Your task to perform on an android device: add a contact in the contacts app Image 0: 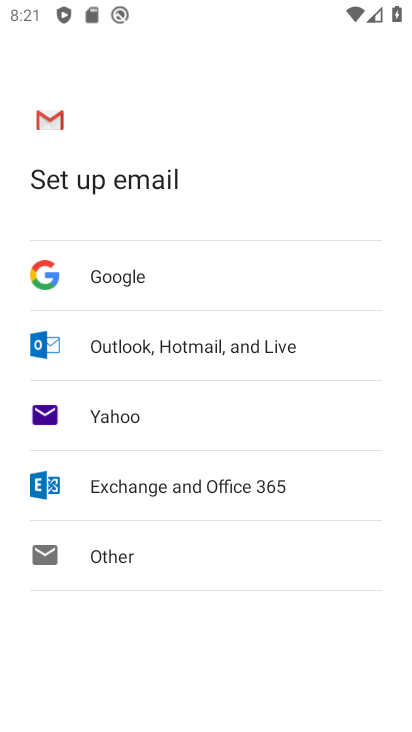
Step 0: press back button
Your task to perform on an android device: add a contact in the contacts app Image 1: 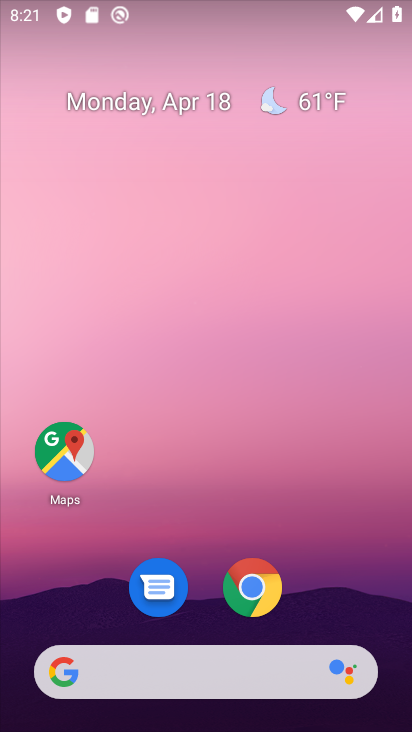
Step 1: drag from (210, 729) to (217, 100)
Your task to perform on an android device: add a contact in the contacts app Image 2: 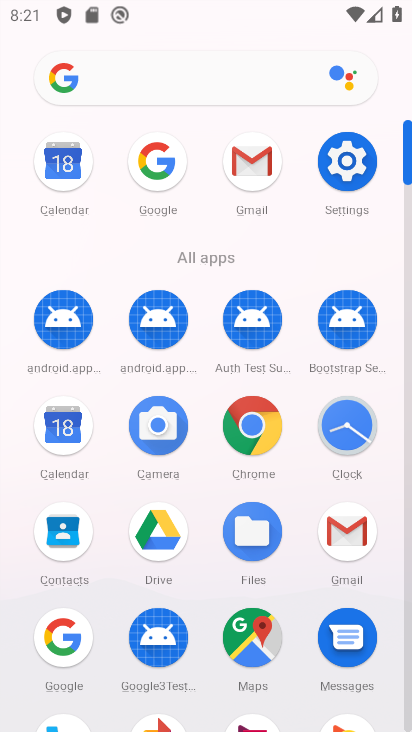
Step 2: click (68, 533)
Your task to perform on an android device: add a contact in the contacts app Image 3: 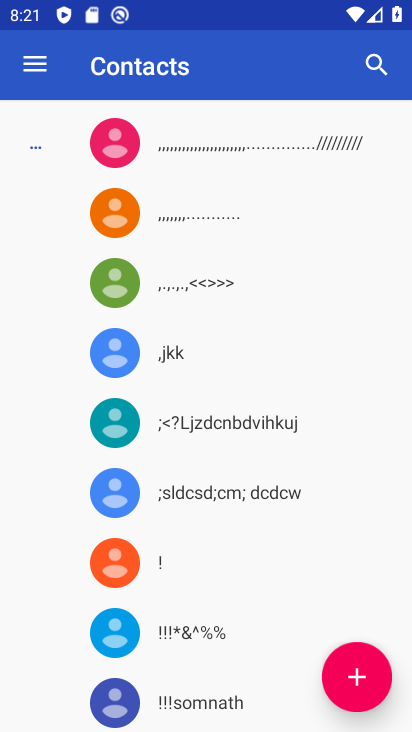
Step 3: click (358, 673)
Your task to perform on an android device: add a contact in the contacts app Image 4: 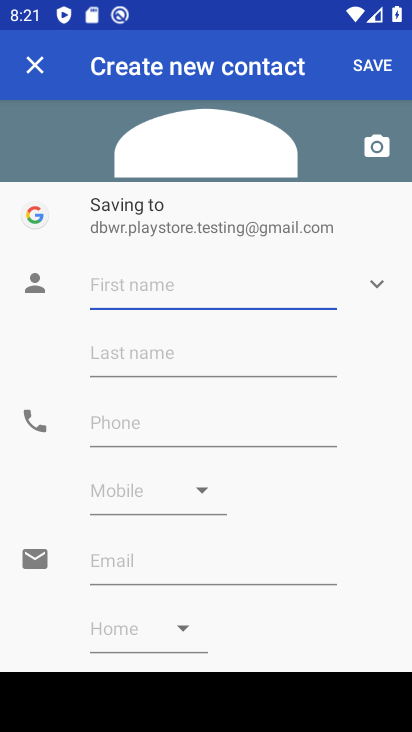
Step 4: type "nody"
Your task to perform on an android device: add a contact in the contacts app Image 5: 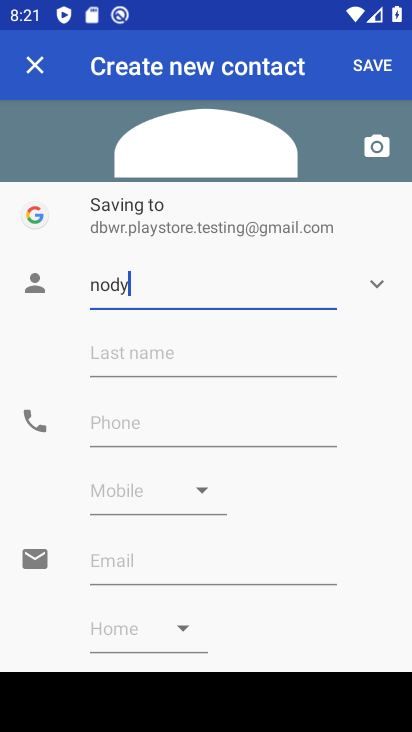
Step 5: type ""
Your task to perform on an android device: add a contact in the contacts app Image 6: 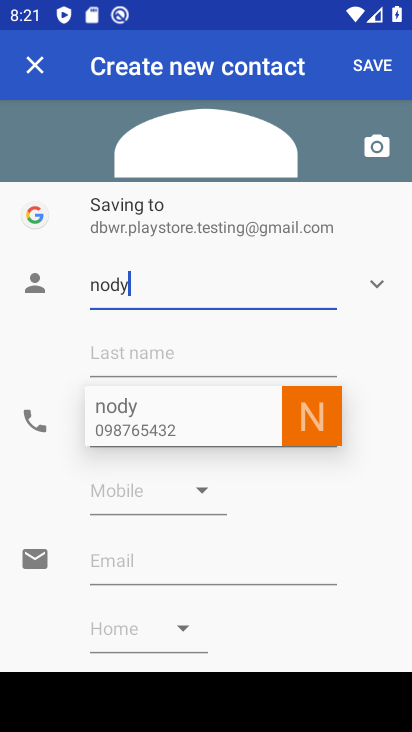
Step 6: type "456"
Your task to perform on an android device: add a contact in the contacts app Image 7: 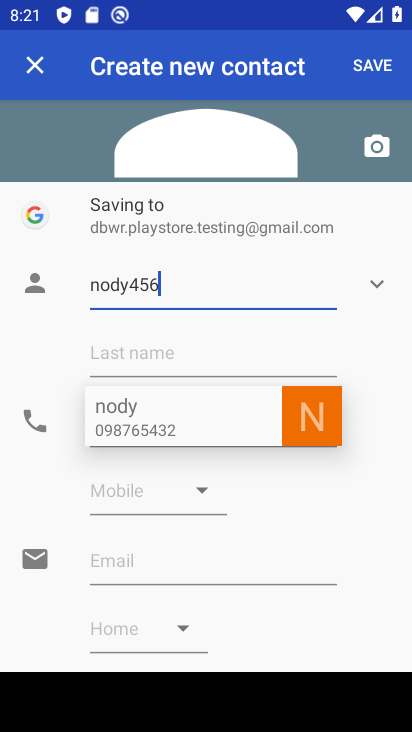
Step 7: type ""
Your task to perform on an android device: add a contact in the contacts app Image 8: 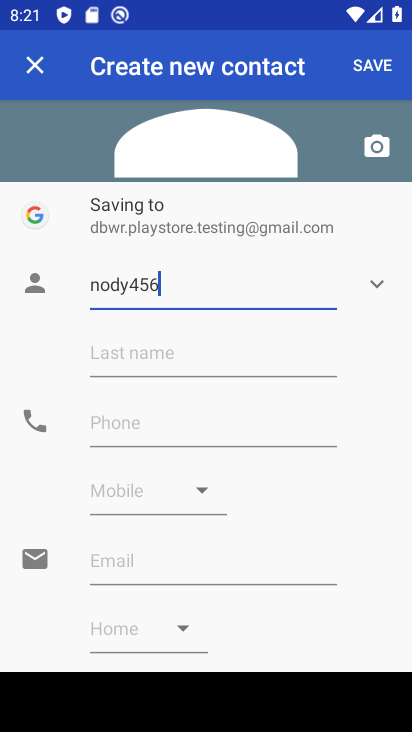
Step 8: click (152, 425)
Your task to perform on an android device: add a contact in the contacts app Image 9: 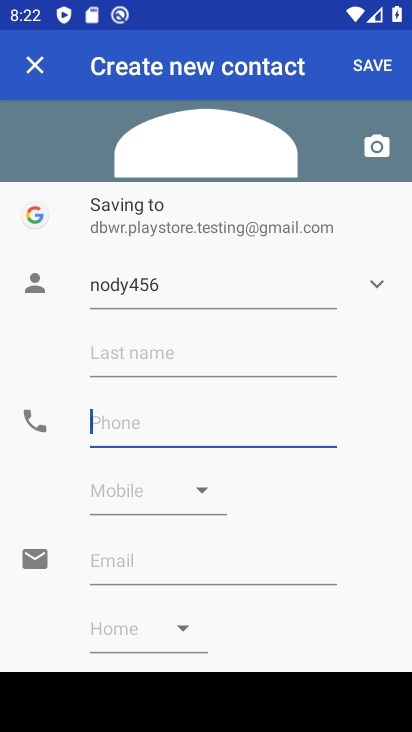
Step 9: type "5678"
Your task to perform on an android device: add a contact in the contacts app Image 10: 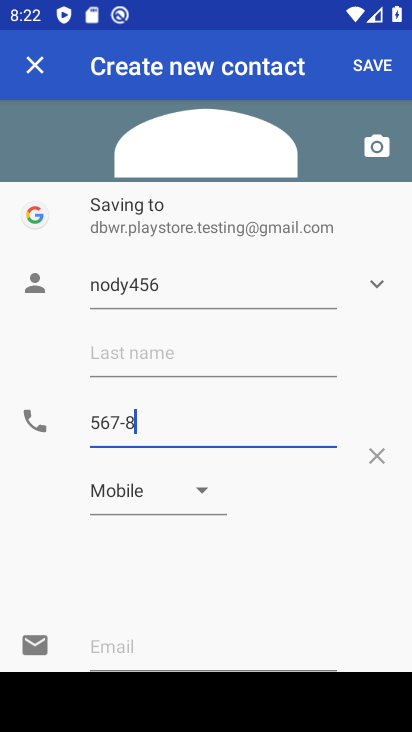
Step 10: type ""
Your task to perform on an android device: add a contact in the contacts app Image 11: 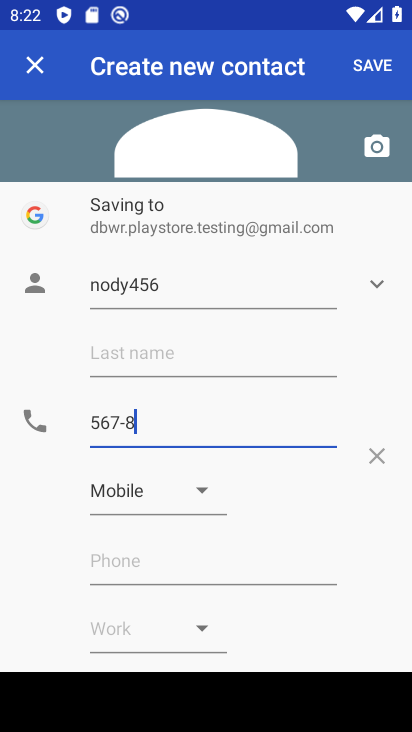
Step 11: click (369, 57)
Your task to perform on an android device: add a contact in the contacts app Image 12: 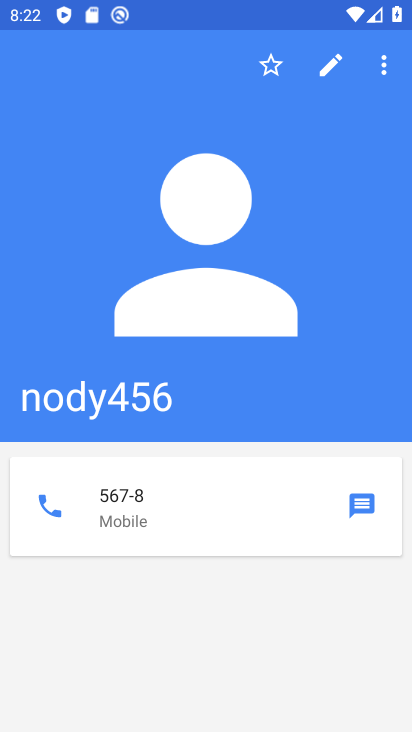
Step 12: task complete